Your task to perform on an android device: find photos in the google photos app Image 0: 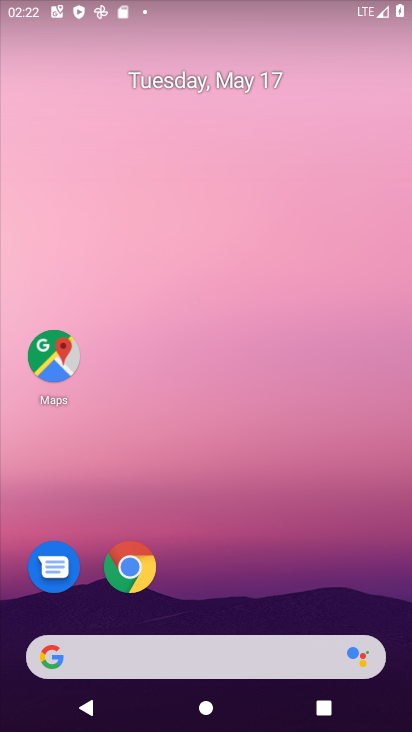
Step 0: drag from (376, 617) to (333, 192)
Your task to perform on an android device: find photos in the google photos app Image 1: 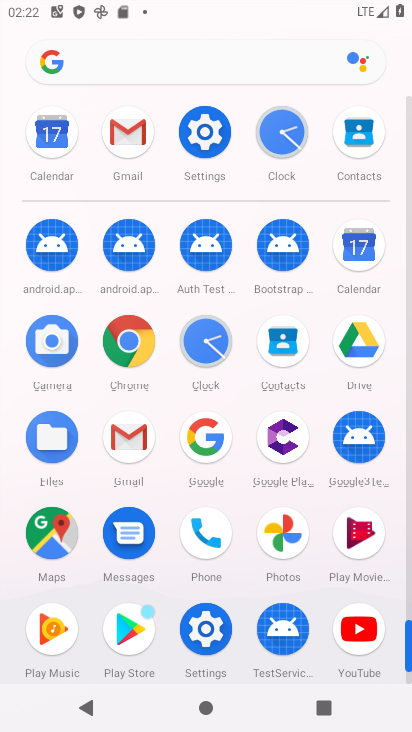
Step 1: click (279, 535)
Your task to perform on an android device: find photos in the google photos app Image 2: 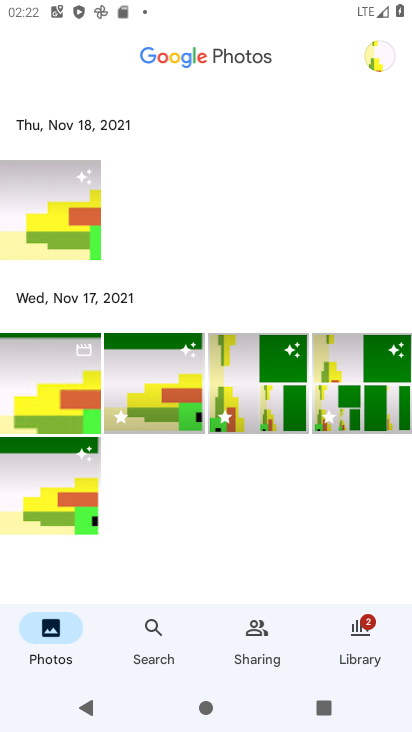
Step 2: click (238, 314)
Your task to perform on an android device: find photos in the google photos app Image 3: 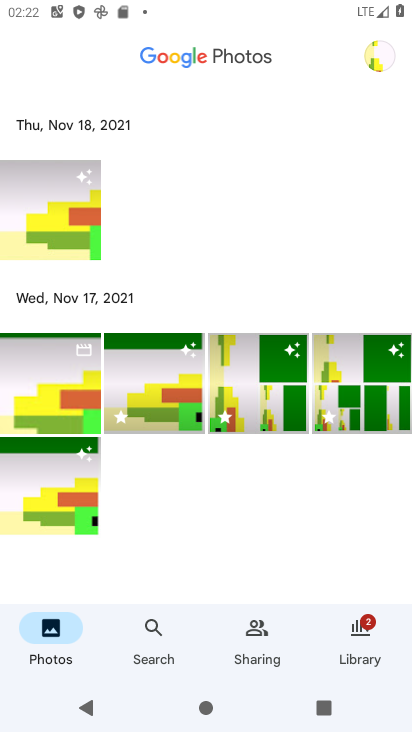
Step 3: task complete